Your task to perform on an android device: change text size in settings app Image 0: 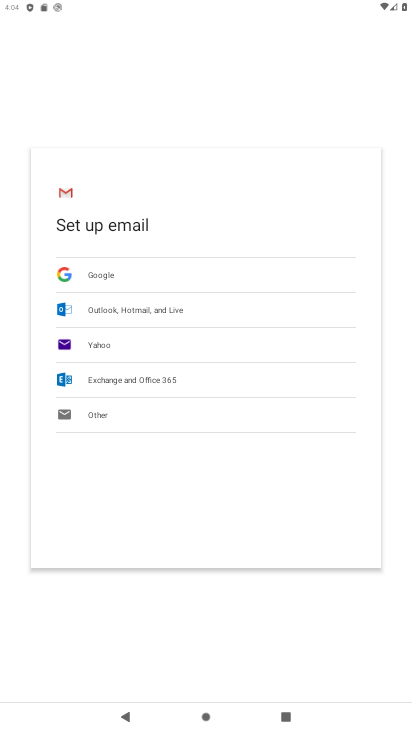
Step 0: press home button
Your task to perform on an android device: change text size in settings app Image 1: 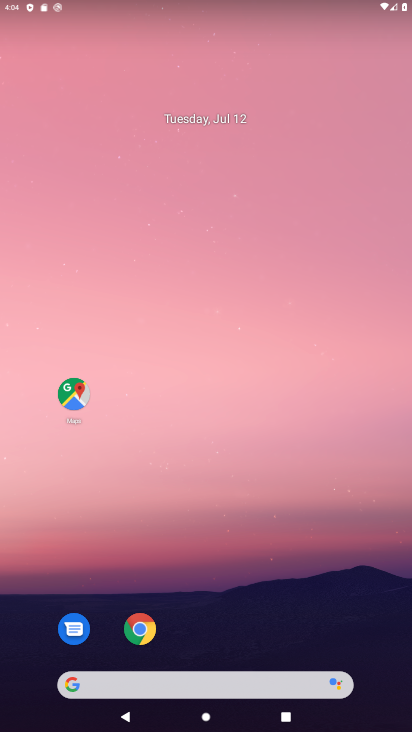
Step 1: drag from (230, 612) to (211, 126)
Your task to perform on an android device: change text size in settings app Image 2: 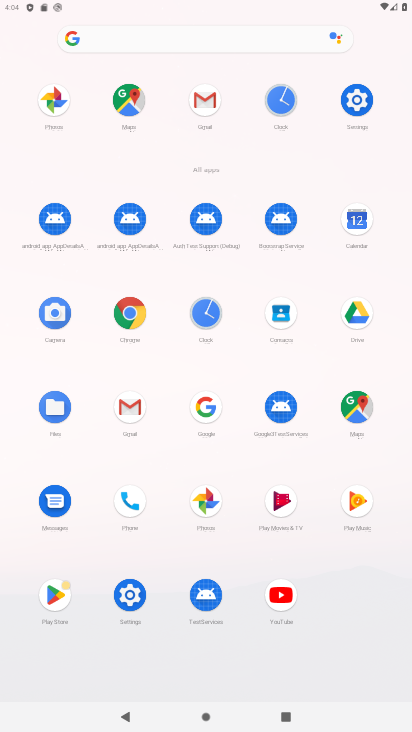
Step 2: click (359, 102)
Your task to perform on an android device: change text size in settings app Image 3: 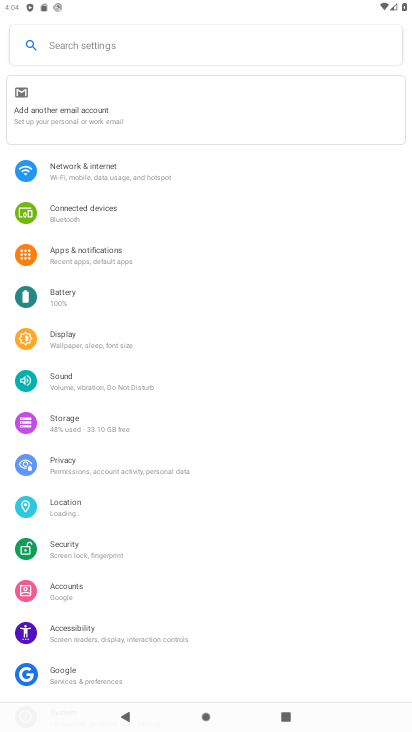
Step 3: click (75, 334)
Your task to perform on an android device: change text size in settings app Image 4: 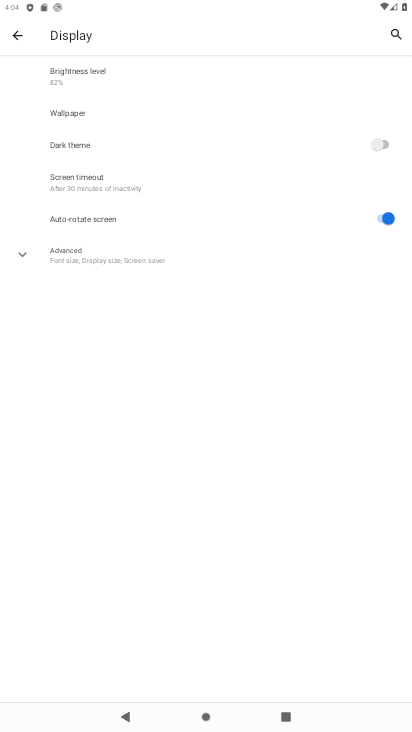
Step 4: click (63, 247)
Your task to perform on an android device: change text size in settings app Image 5: 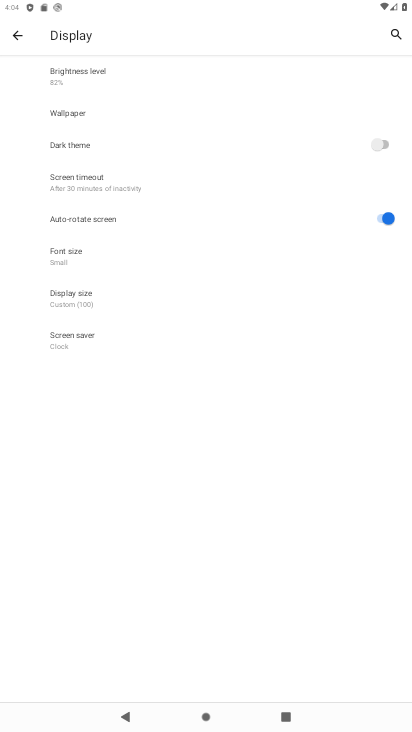
Step 5: click (56, 257)
Your task to perform on an android device: change text size in settings app Image 6: 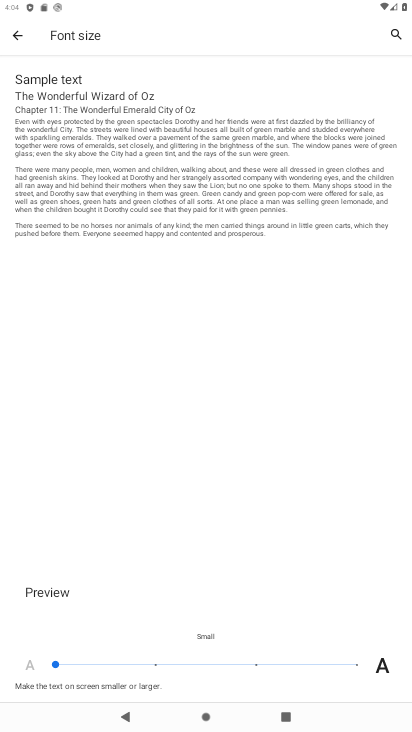
Step 6: click (157, 665)
Your task to perform on an android device: change text size in settings app Image 7: 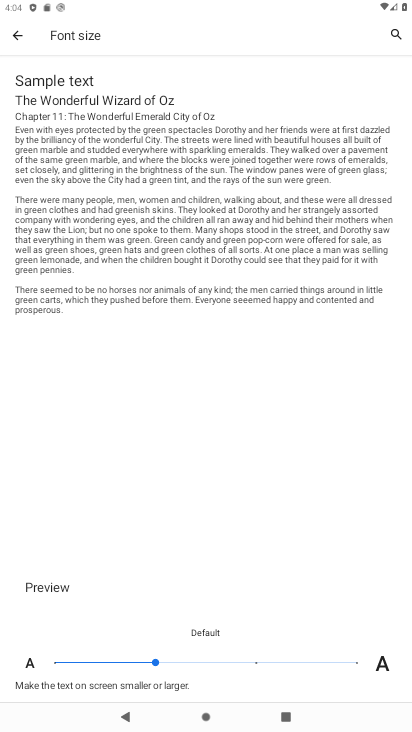
Step 7: click (260, 659)
Your task to perform on an android device: change text size in settings app Image 8: 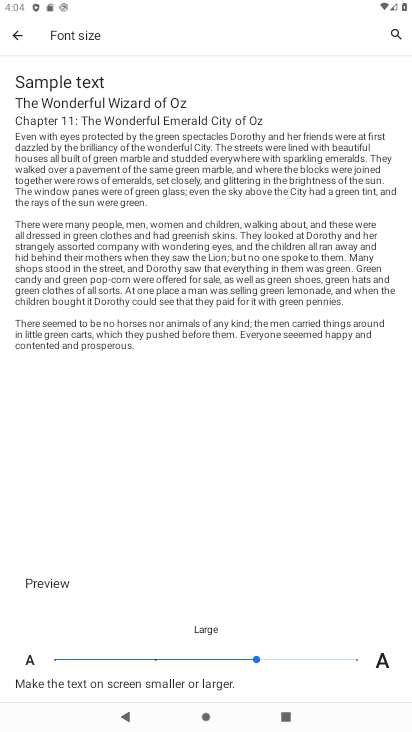
Step 8: click (355, 659)
Your task to perform on an android device: change text size in settings app Image 9: 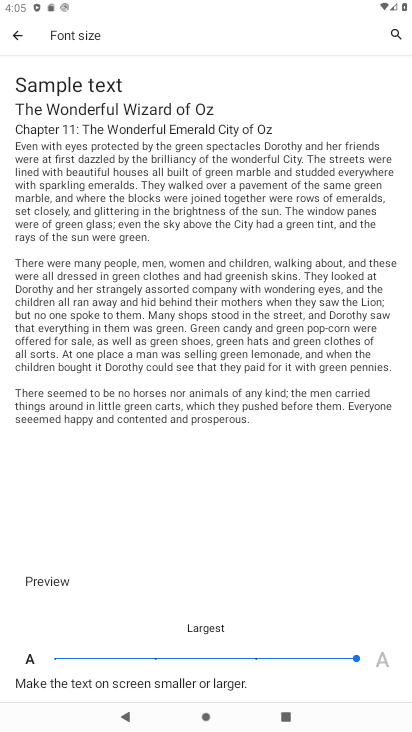
Step 9: task complete